Your task to perform on an android device: Turn off the flashlight Image 0: 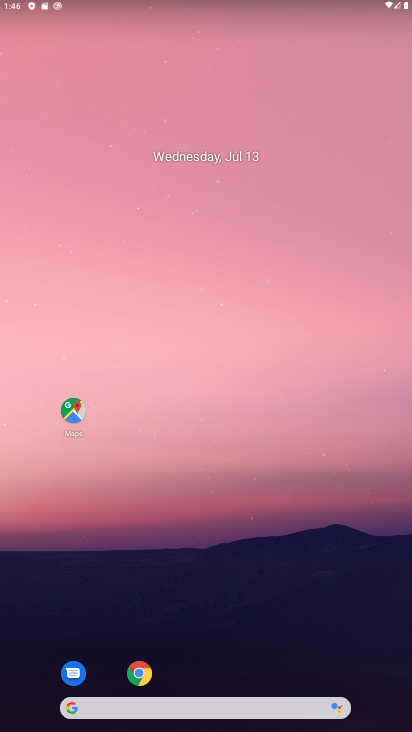
Step 0: drag from (247, 576) to (217, 139)
Your task to perform on an android device: Turn off the flashlight Image 1: 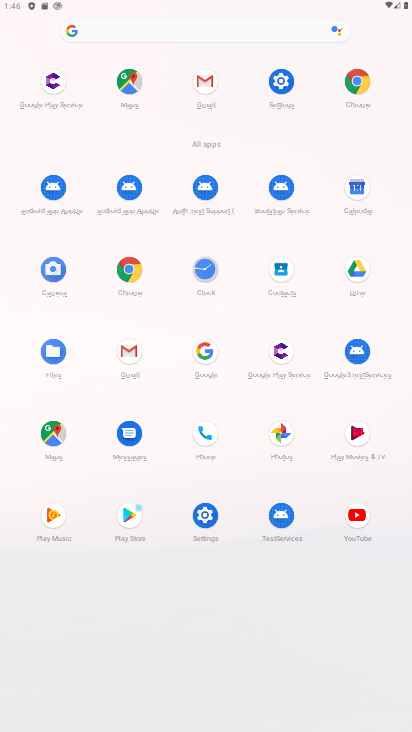
Step 1: click (282, 84)
Your task to perform on an android device: Turn off the flashlight Image 2: 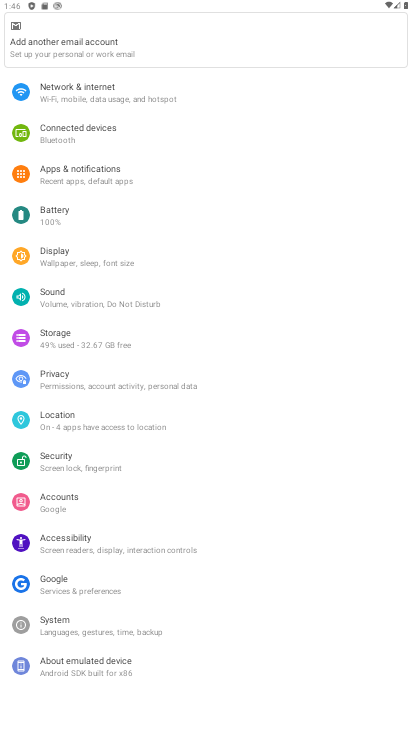
Step 2: task complete